Your task to perform on an android device: turn off smart reply in the gmail app Image 0: 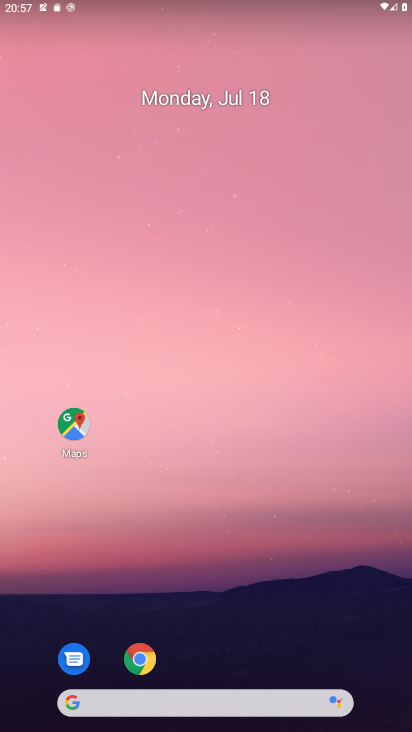
Step 0: drag from (246, 601) to (190, 306)
Your task to perform on an android device: turn off smart reply in the gmail app Image 1: 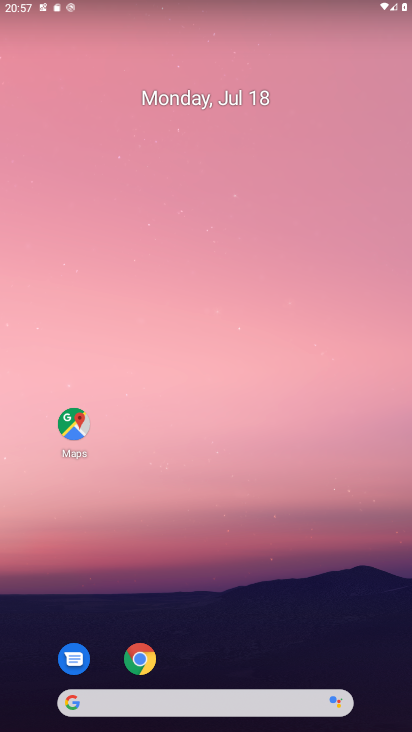
Step 1: drag from (136, 498) to (96, 130)
Your task to perform on an android device: turn off smart reply in the gmail app Image 2: 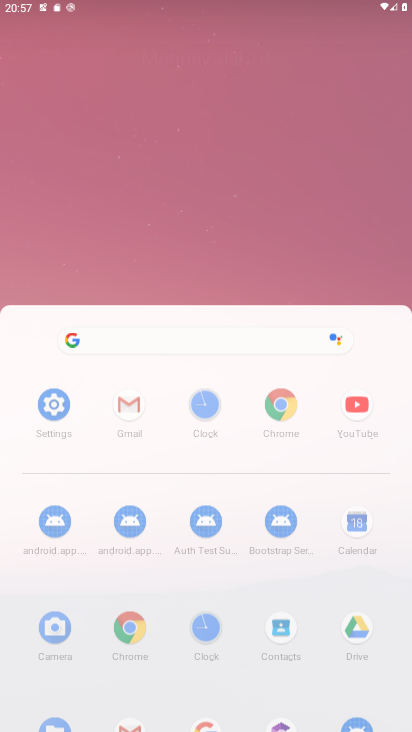
Step 2: drag from (283, 604) to (180, 174)
Your task to perform on an android device: turn off smart reply in the gmail app Image 3: 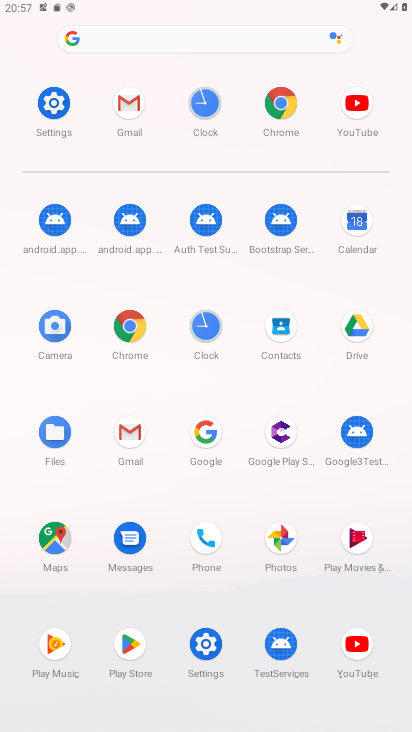
Step 3: click (130, 438)
Your task to perform on an android device: turn off smart reply in the gmail app Image 4: 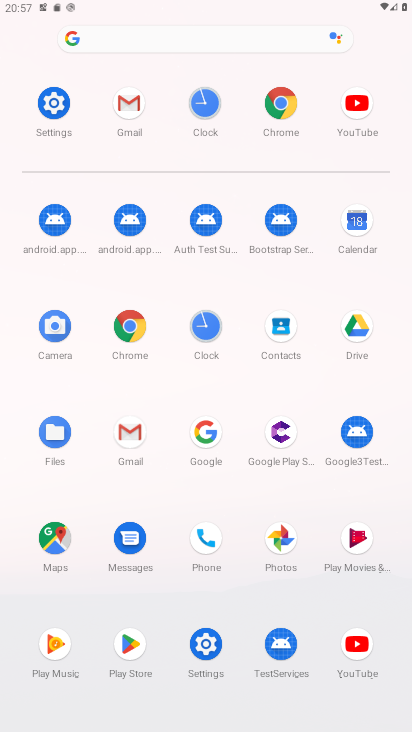
Step 4: click (130, 436)
Your task to perform on an android device: turn off smart reply in the gmail app Image 5: 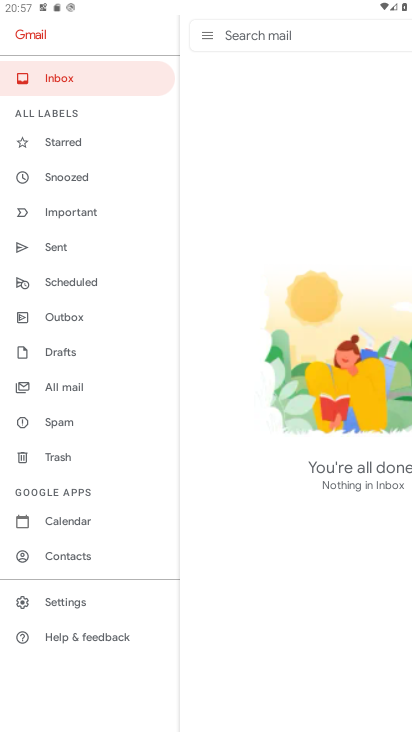
Step 5: click (73, 669)
Your task to perform on an android device: turn off smart reply in the gmail app Image 6: 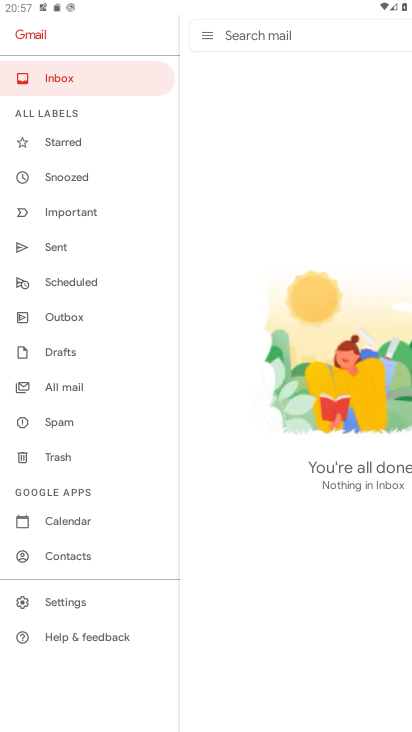
Step 6: click (74, 669)
Your task to perform on an android device: turn off smart reply in the gmail app Image 7: 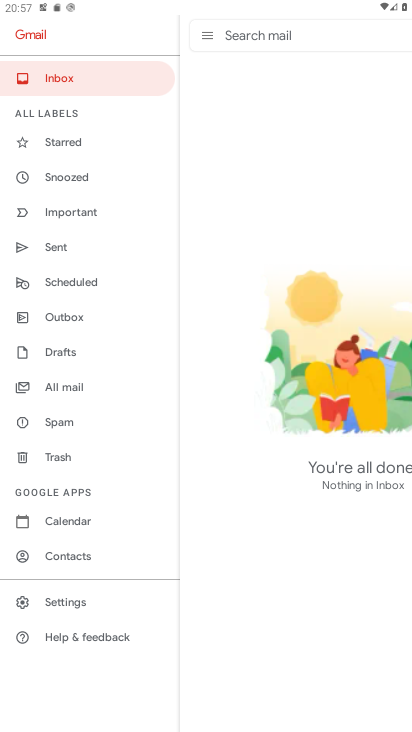
Step 7: click (75, 599)
Your task to perform on an android device: turn off smart reply in the gmail app Image 8: 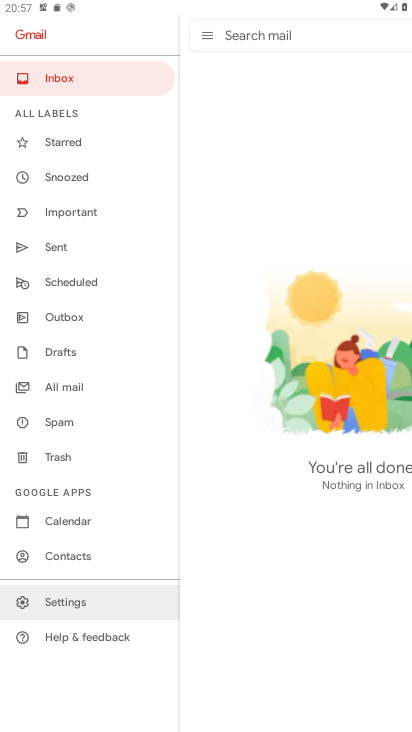
Step 8: click (66, 600)
Your task to perform on an android device: turn off smart reply in the gmail app Image 9: 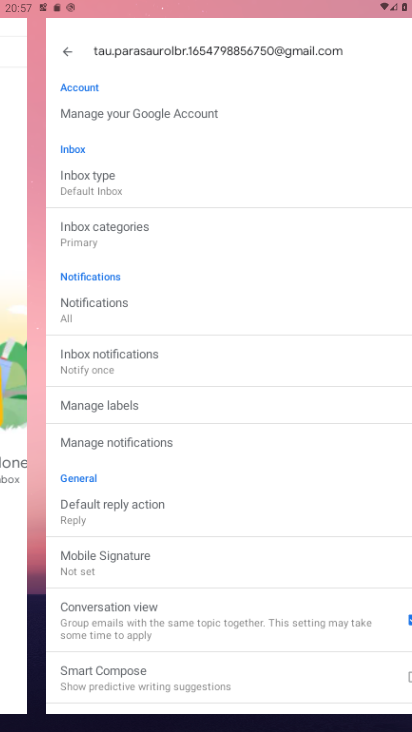
Step 9: click (65, 594)
Your task to perform on an android device: turn off smart reply in the gmail app Image 10: 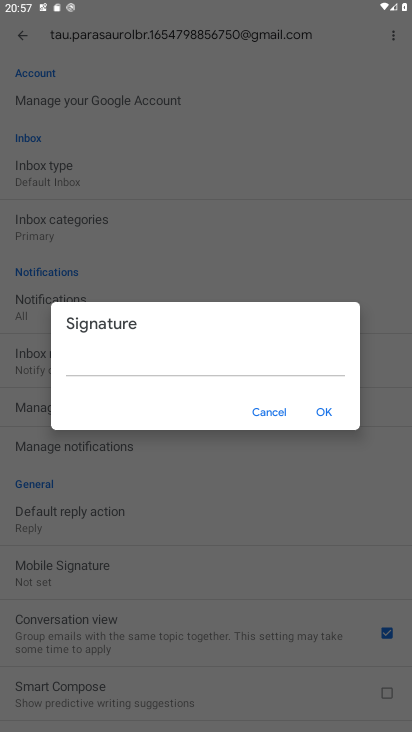
Step 10: click (273, 410)
Your task to perform on an android device: turn off smart reply in the gmail app Image 11: 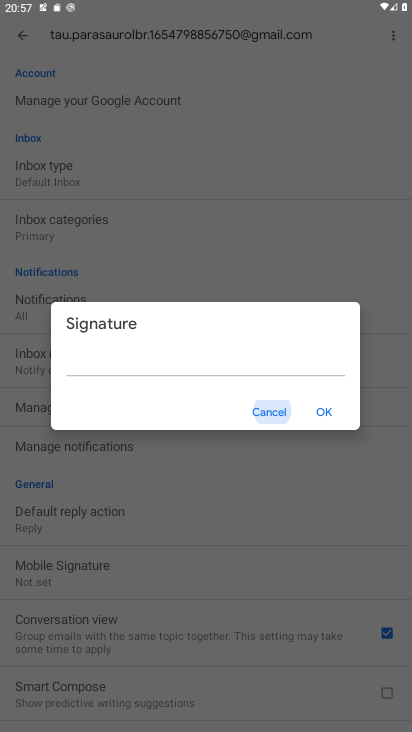
Step 11: click (273, 410)
Your task to perform on an android device: turn off smart reply in the gmail app Image 12: 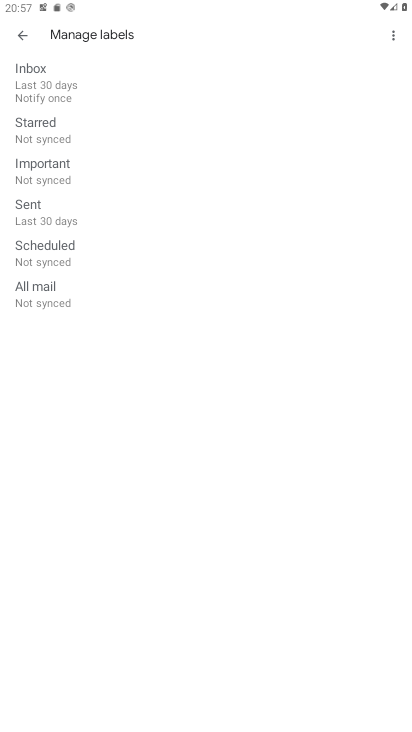
Step 12: click (28, 35)
Your task to perform on an android device: turn off smart reply in the gmail app Image 13: 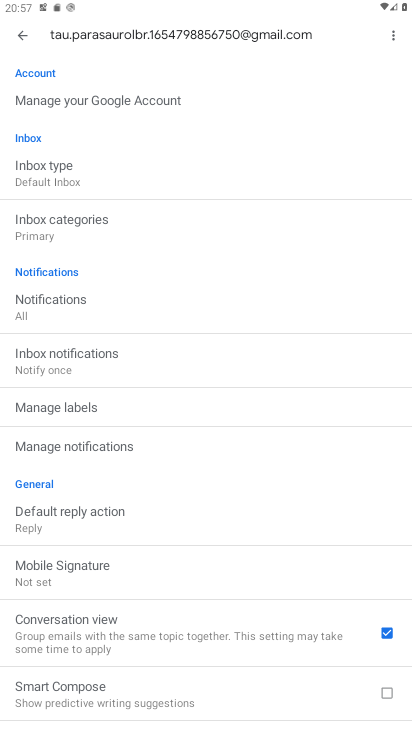
Step 13: drag from (85, 603) to (82, 138)
Your task to perform on an android device: turn off smart reply in the gmail app Image 14: 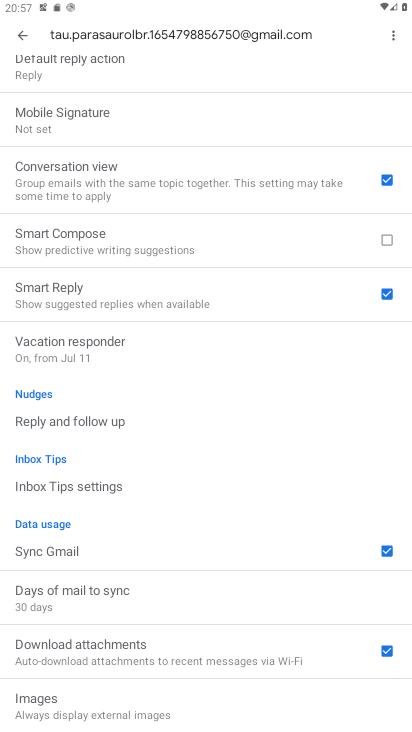
Step 14: click (393, 295)
Your task to perform on an android device: turn off smart reply in the gmail app Image 15: 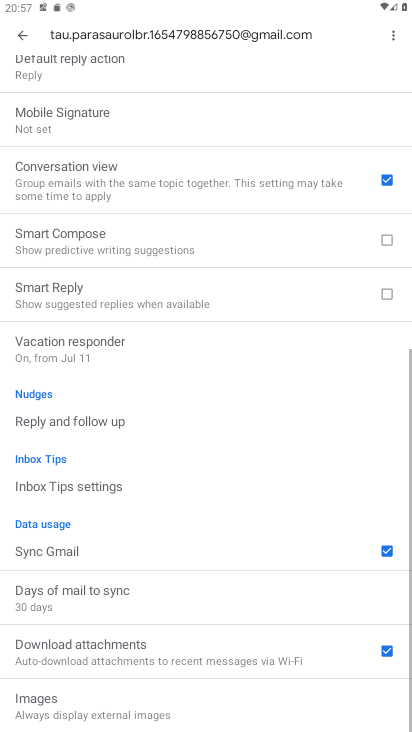
Step 15: task complete